Your task to perform on an android device: Open wifi settings Image 0: 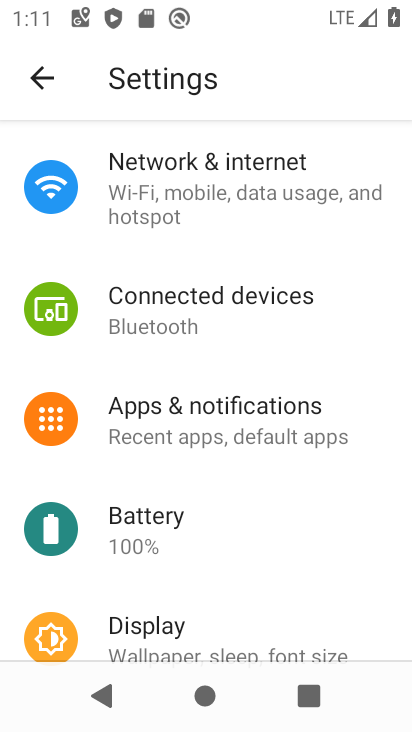
Step 0: press home button
Your task to perform on an android device: Open wifi settings Image 1: 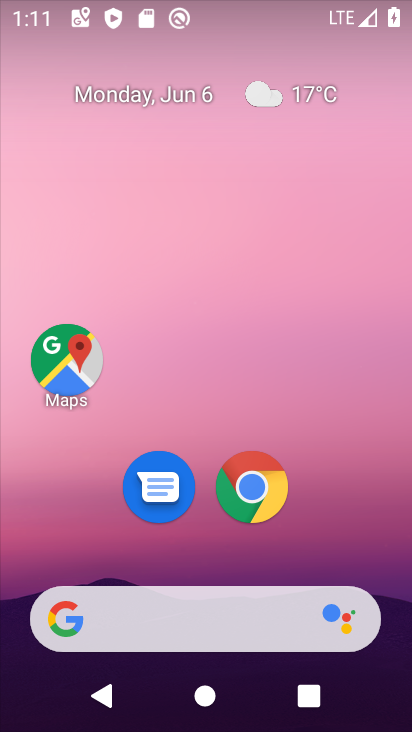
Step 1: drag from (85, 14) to (118, 447)
Your task to perform on an android device: Open wifi settings Image 2: 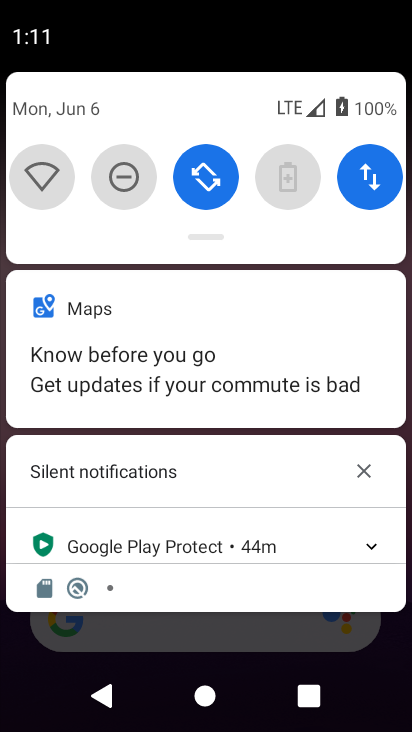
Step 2: click (43, 171)
Your task to perform on an android device: Open wifi settings Image 3: 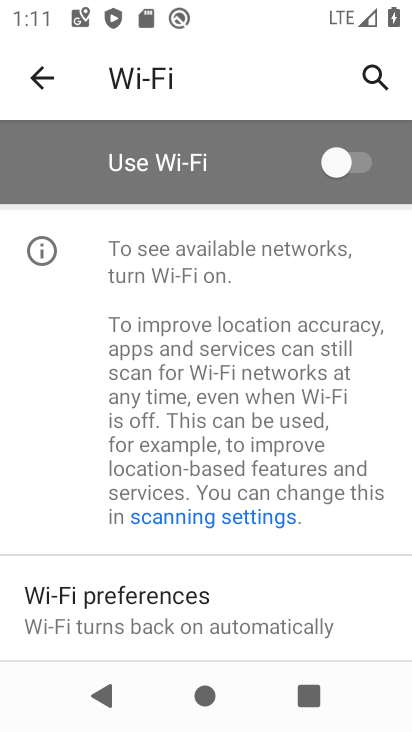
Step 3: task complete